Your task to perform on an android device: Open Youtube and go to the subscriptions tab Image 0: 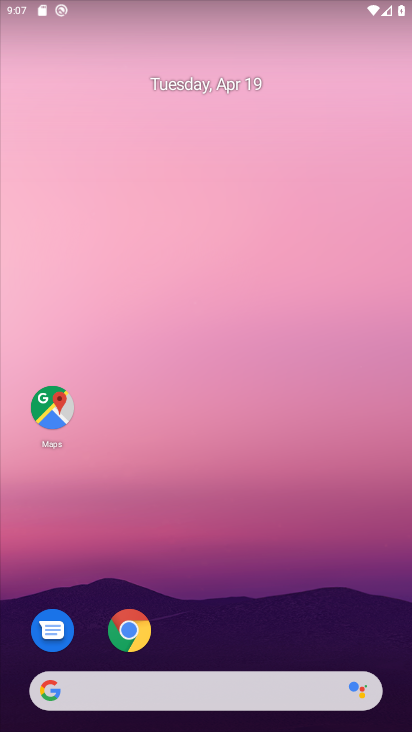
Step 0: drag from (211, 635) to (248, 100)
Your task to perform on an android device: Open Youtube and go to the subscriptions tab Image 1: 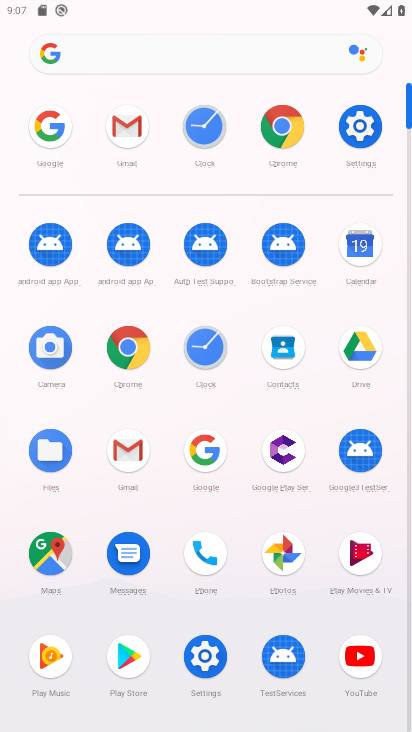
Step 1: click (381, 678)
Your task to perform on an android device: Open Youtube and go to the subscriptions tab Image 2: 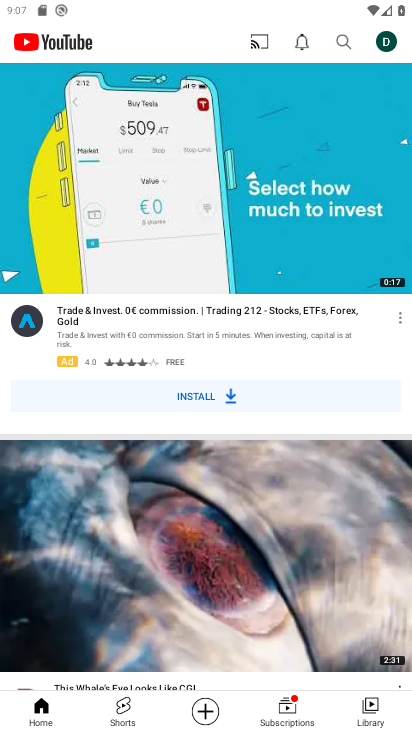
Step 2: click (285, 725)
Your task to perform on an android device: Open Youtube and go to the subscriptions tab Image 3: 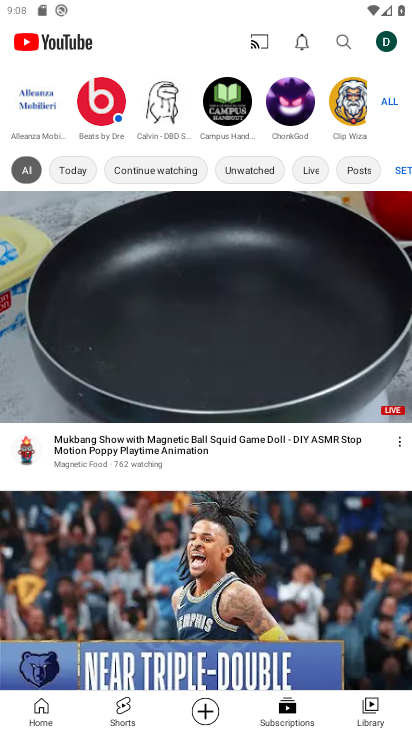
Step 3: task complete